Your task to perform on an android device: Open Chrome and go to settings Image 0: 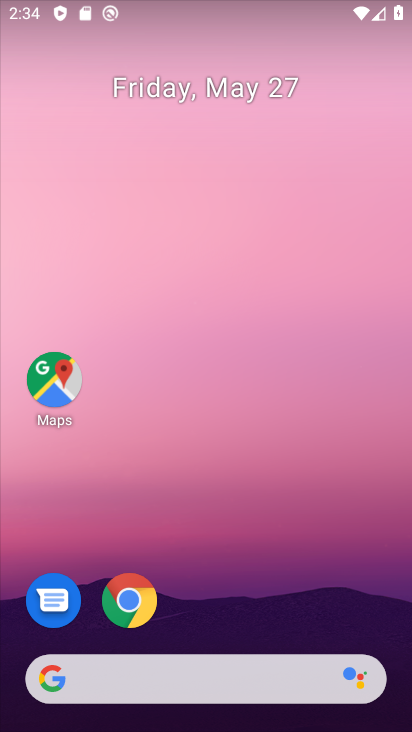
Step 0: click (135, 597)
Your task to perform on an android device: Open Chrome and go to settings Image 1: 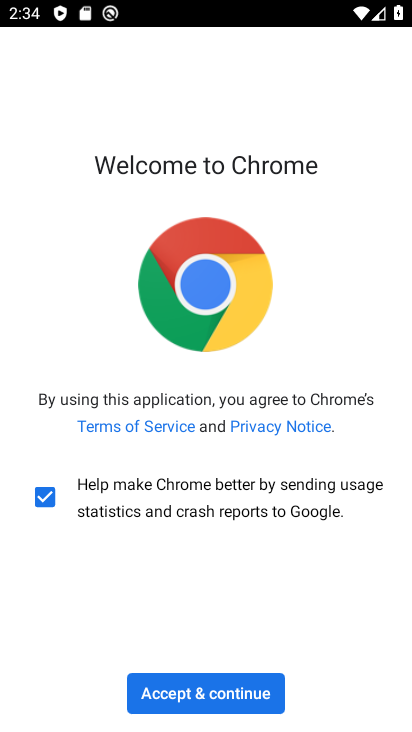
Step 1: click (200, 691)
Your task to perform on an android device: Open Chrome and go to settings Image 2: 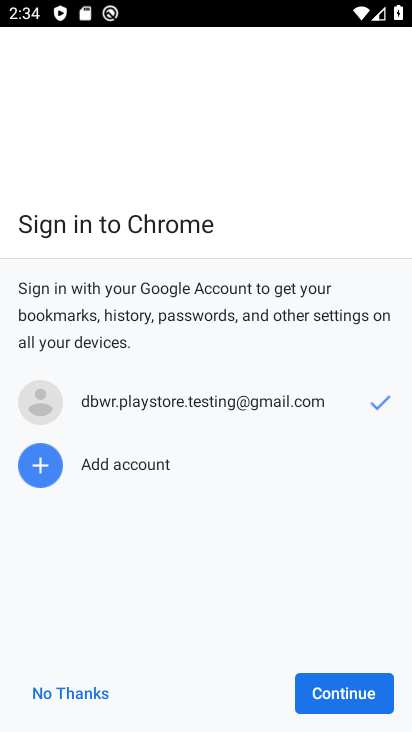
Step 2: click (354, 695)
Your task to perform on an android device: Open Chrome and go to settings Image 3: 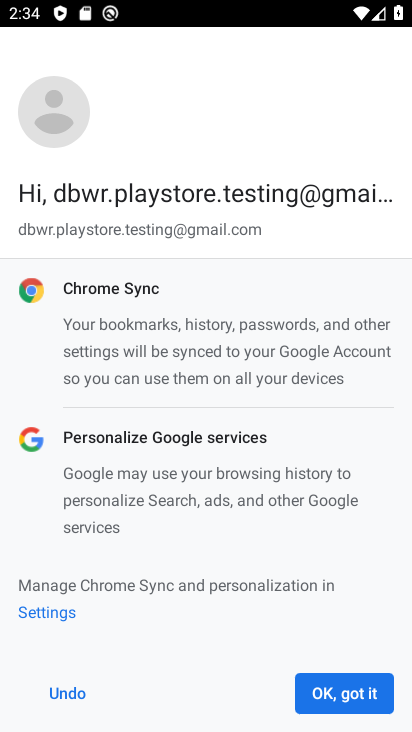
Step 3: click (354, 695)
Your task to perform on an android device: Open Chrome and go to settings Image 4: 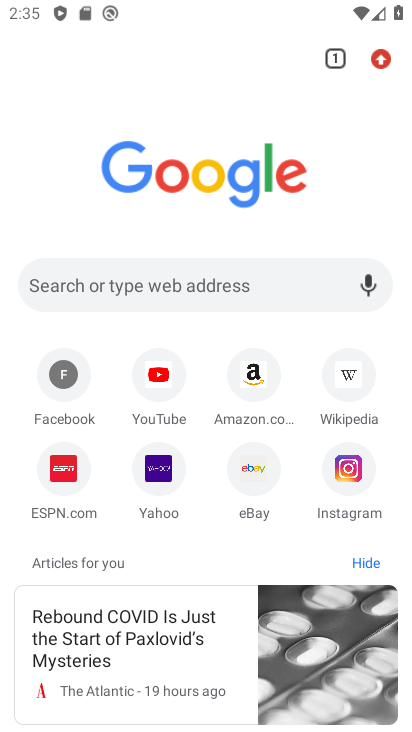
Step 4: click (383, 53)
Your task to perform on an android device: Open Chrome and go to settings Image 5: 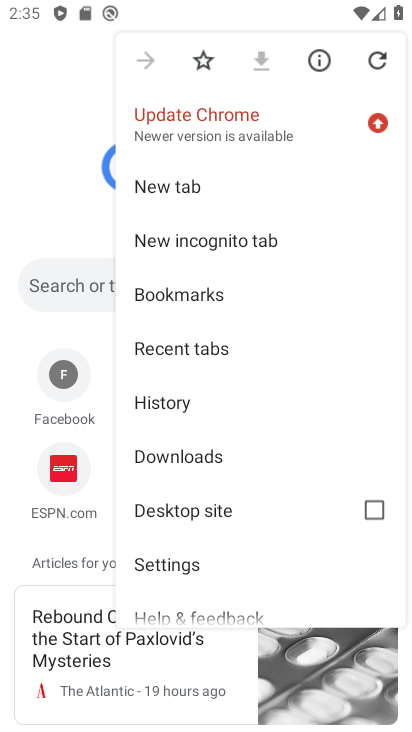
Step 5: click (193, 557)
Your task to perform on an android device: Open Chrome and go to settings Image 6: 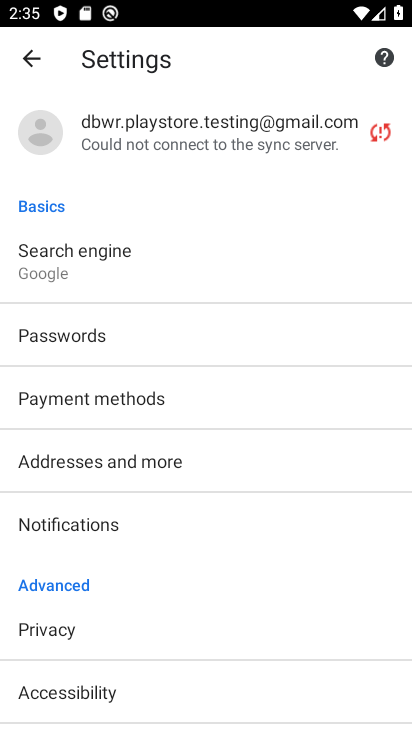
Step 6: task complete